Your task to perform on an android device: Check out the new ikea catalog. Image 0: 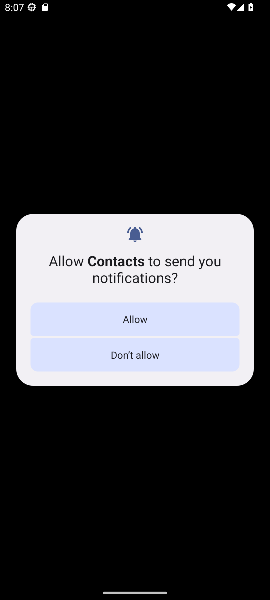
Step 0: press home button
Your task to perform on an android device: Check out the new ikea catalog. Image 1: 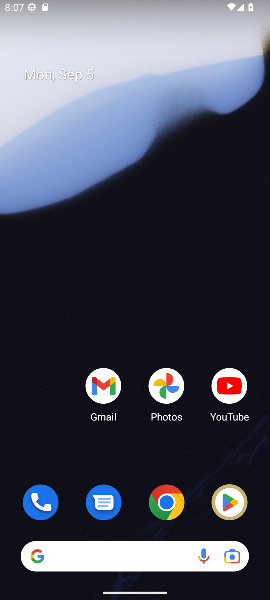
Step 1: drag from (201, 494) to (97, 18)
Your task to perform on an android device: Check out the new ikea catalog. Image 2: 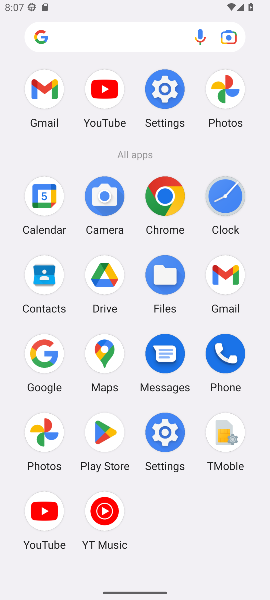
Step 2: click (38, 360)
Your task to perform on an android device: Check out the new ikea catalog. Image 3: 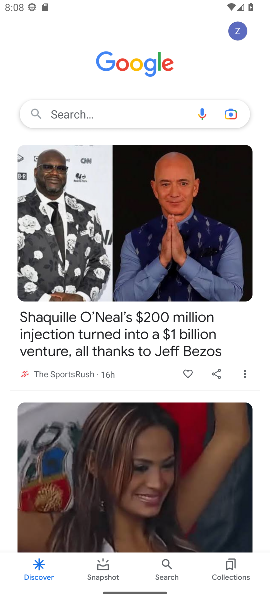
Step 3: click (88, 109)
Your task to perform on an android device: Check out the new ikea catalog. Image 4: 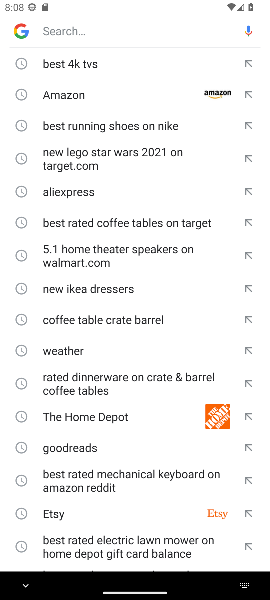
Step 4: type "new ikea catalog"
Your task to perform on an android device: Check out the new ikea catalog. Image 5: 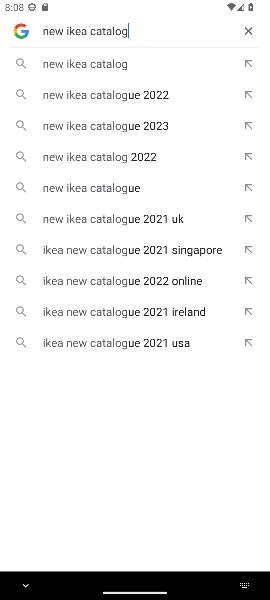
Step 5: click (112, 66)
Your task to perform on an android device: Check out the new ikea catalog. Image 6: 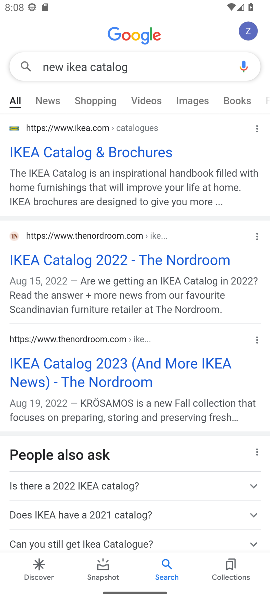
Step 6: task complete